Your task to perform on an android device: Open Google Maps Image 0: 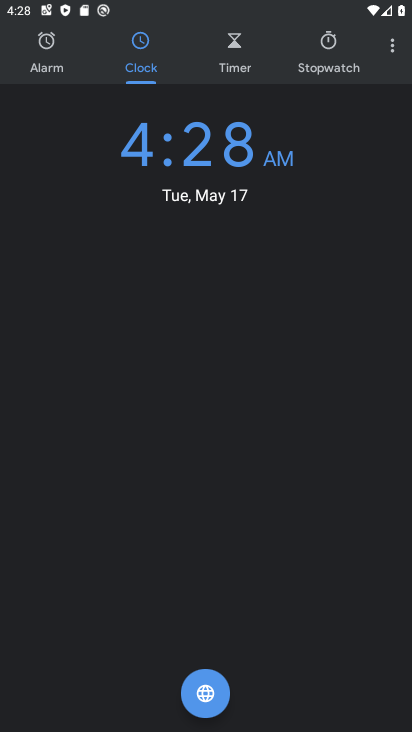
Step 0: press home button
Your task to perform on an android device: Open Google Maps Image 1: 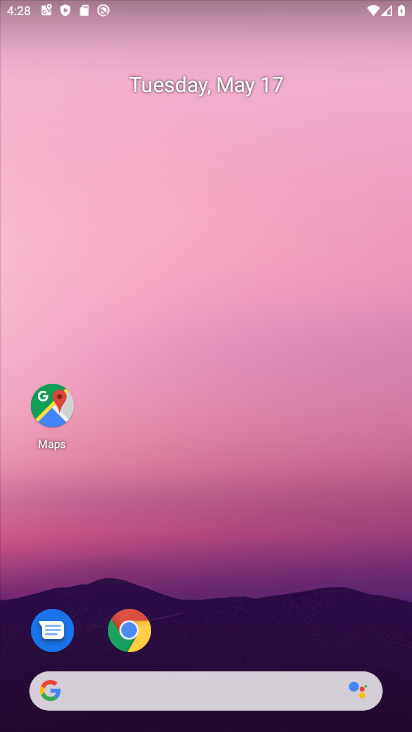
Step 1: click (56, 398)
Your task to perform on an android device: Open Google Maps Image 2: 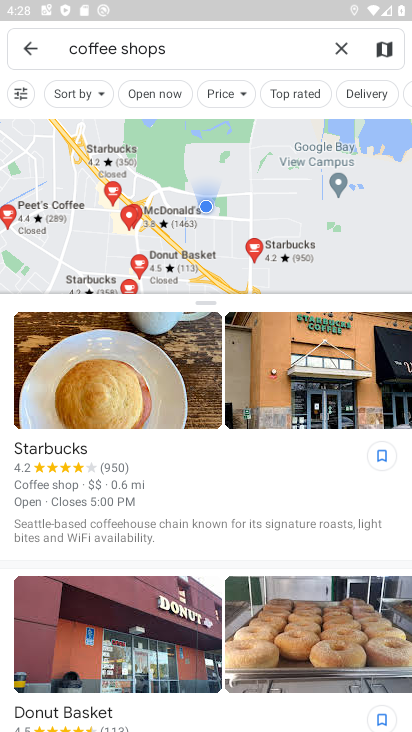
Step 2: click (25, 38)
Your task to perform on an android device: Open Google Maps Image 3: 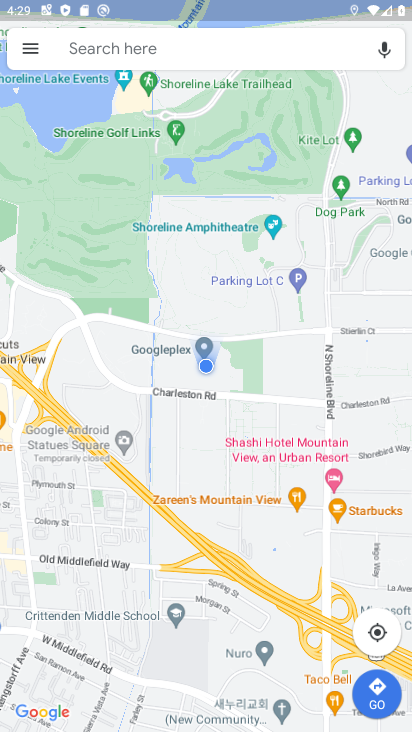
Step 3: task complete